Your task to perform on an android device: change timer sound Image 0: 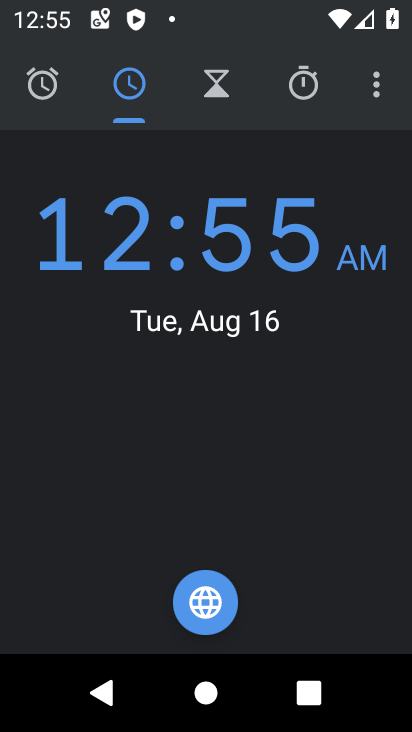
Step 0: press home button
Your task to perform on an android device: change timer sound Image 1: 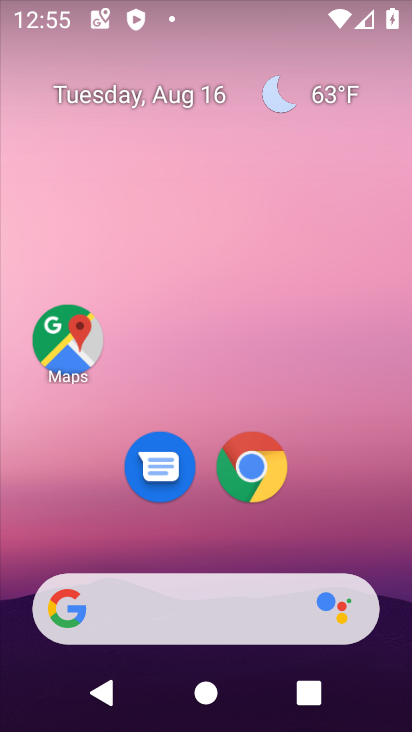
Step 1: drag from (338, 526) to (357, 149)
Your task to perform on an android device: change timer sound Image 2: 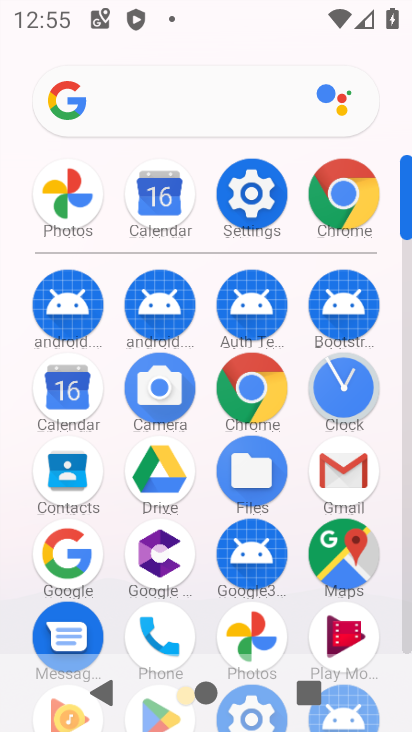
Step 2: click (337, 387)
Your task to perform on an android device: change timer sound Image 3: 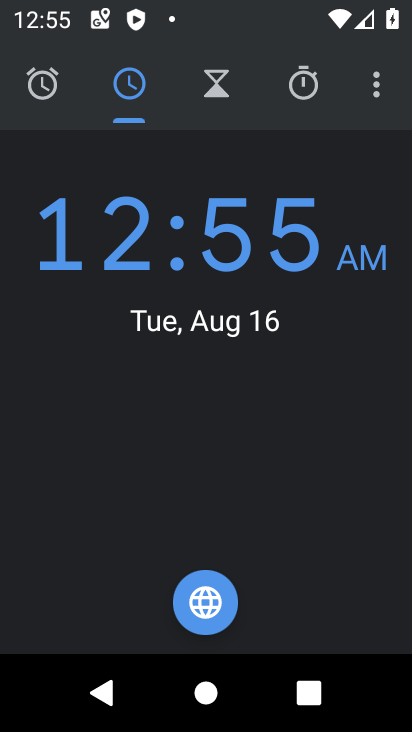
Step 3: click (380, 88)
Your task to perform on an android device: change timer sound Image 4: 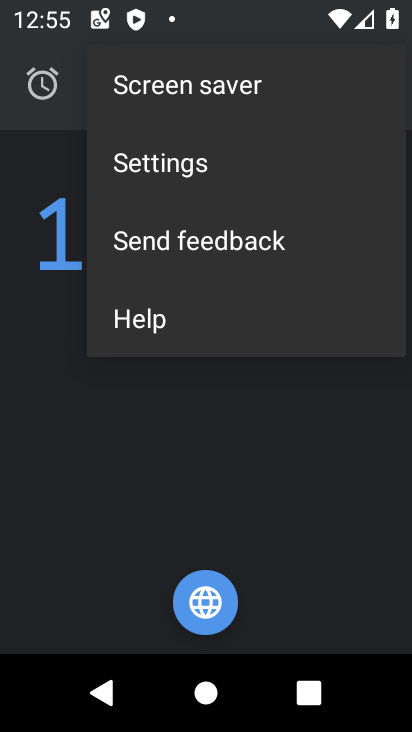
Step 4: click (275, 170)
Your task to perform on an android device: change timer sound Image 5: 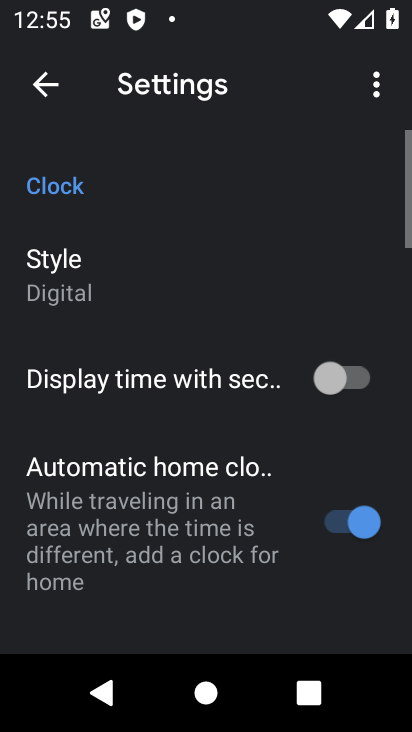
Step 5: drag from (231, 542) to (253, 441)
Your task to perform on an android device: change timer sound Image 6: 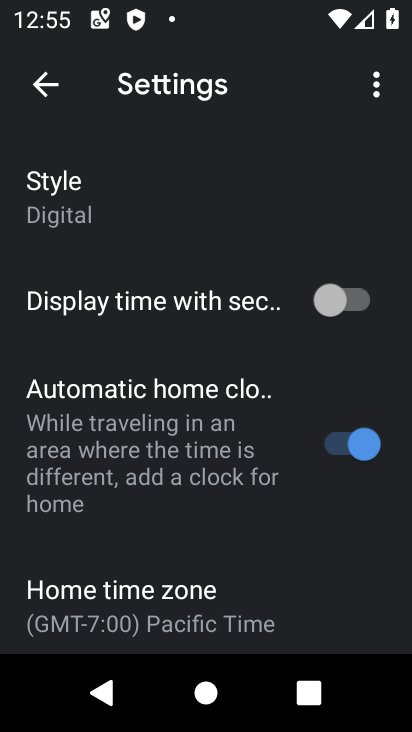
Step 6: drag from (243, 505) to (240, 178)
Your task to perform on an android device: change timer sound Image 7: 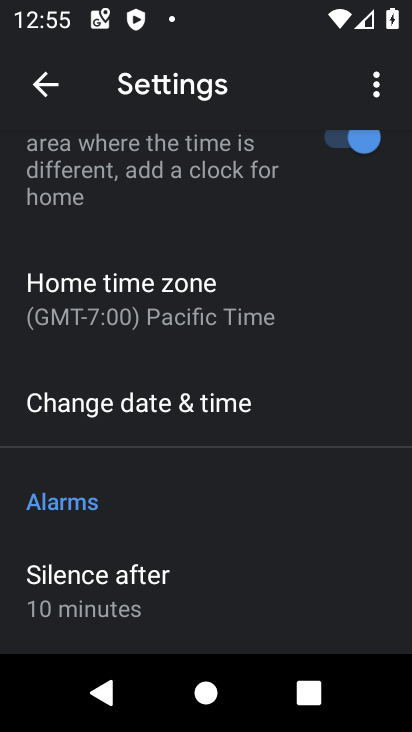
Step 7: drag from (257, 496) to (257, 344)
Your task to perform on an android device: change timer sound Image 8: 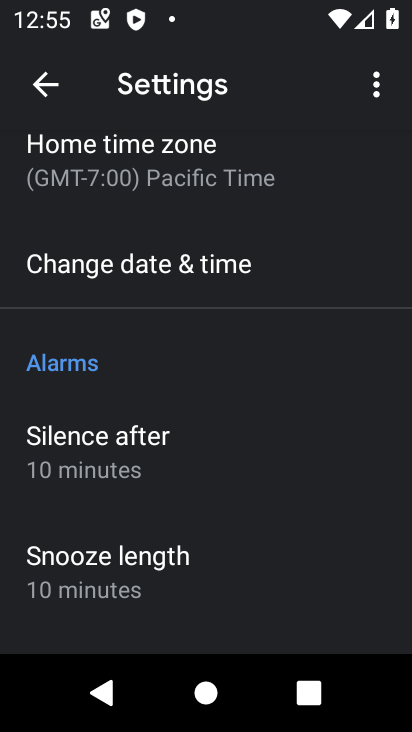
Step 8: drag from (281, 521) to (301, 371)
Your task to perform on an android device: change timer sound Image 9: 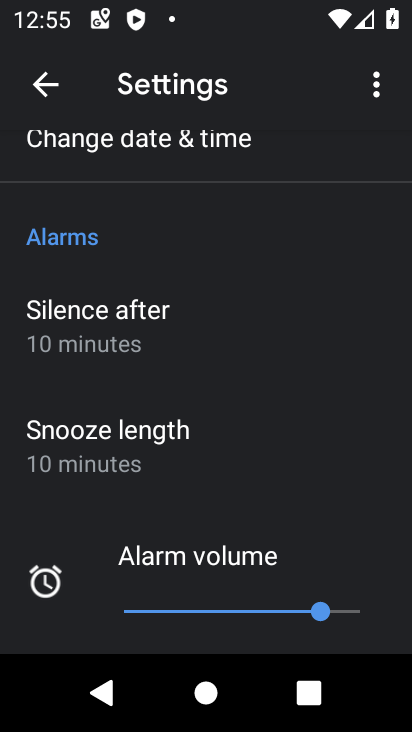
Step 9: drag from (350, 503) to (349, 389)
Your task to perform on an android device: change timer sound Image 10: 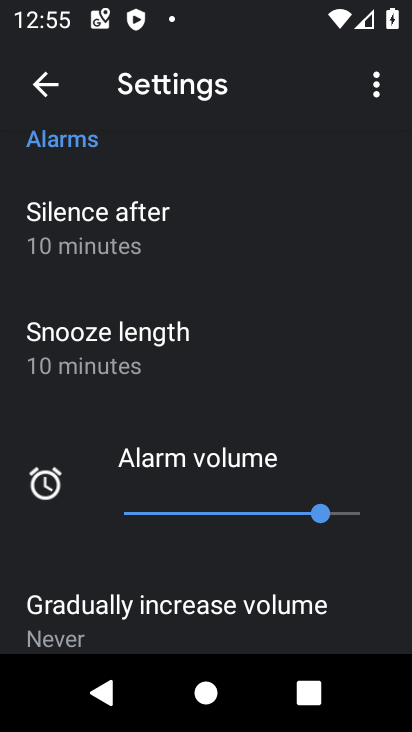
Step 10: drag from (372, 568) to (363, 394)
Your task to perform on an android device: change timer sound Image 11: 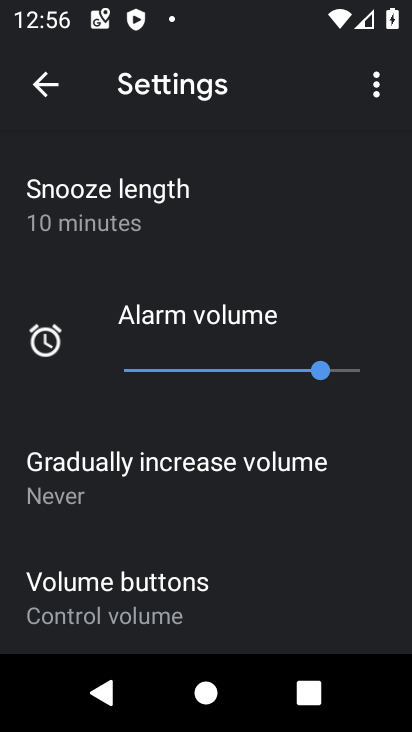
Step 11: drag from (379, 552) to (360, 411)
Your task to perform on an android device: change timer sound Image 12: 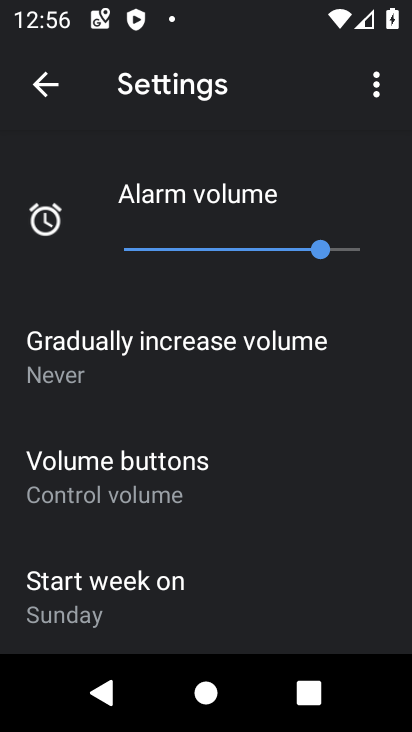
Step 12: drag from (361, 591) to (348, 431)
Your task to perform on an android device: change timer sound Image 13: 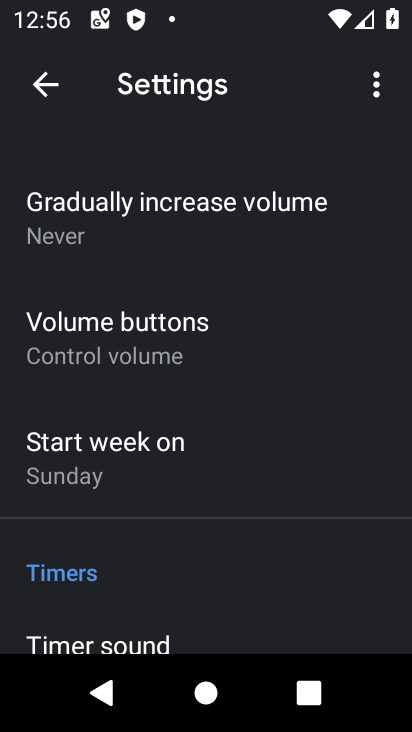
Step 13: drag from (311, 516) to (300, 425)
Your task to perform on an android device: change timer sound Image 14: 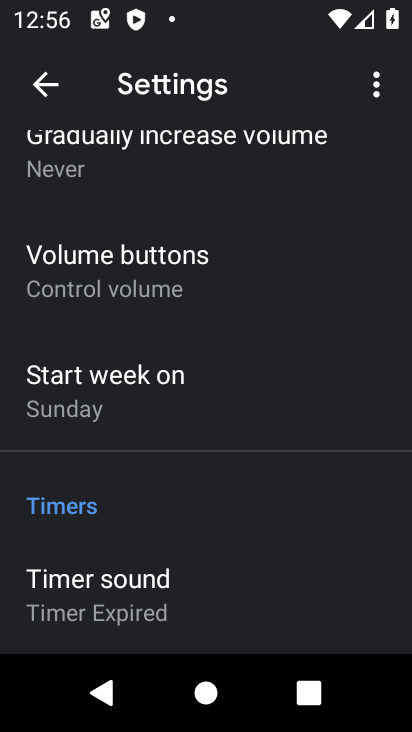
Step 14: drag from (288, 606) to (277, 458)
Your task to perform on an android device: change timer sound Image 15: 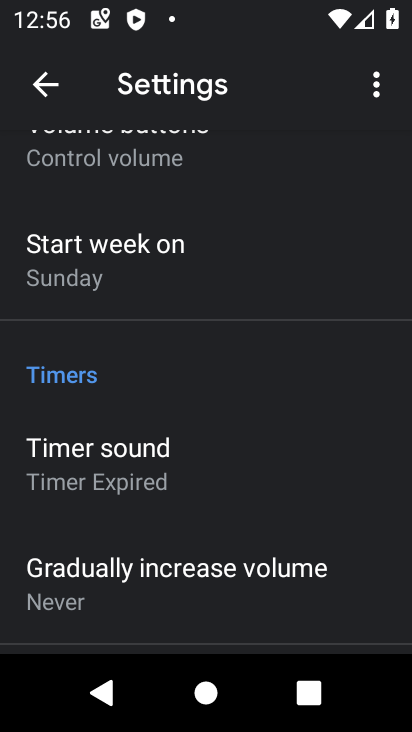
Step 15: click (208, 473)
Your task to perform on an android device: change timer sound Image 16: 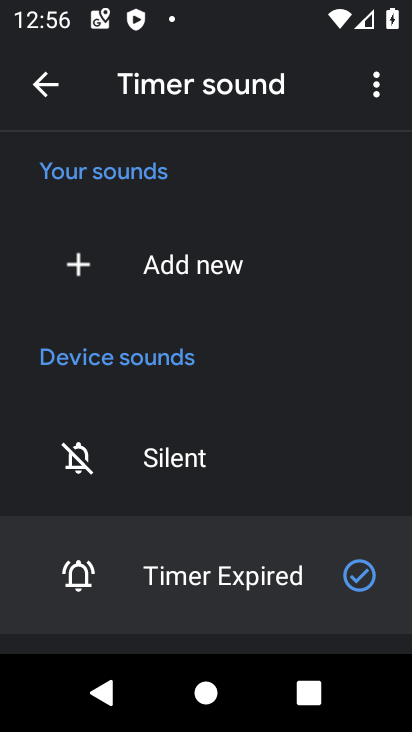
Step 16: click (182, 464)
Your task to perform on an android device: change timer sound Image 17: 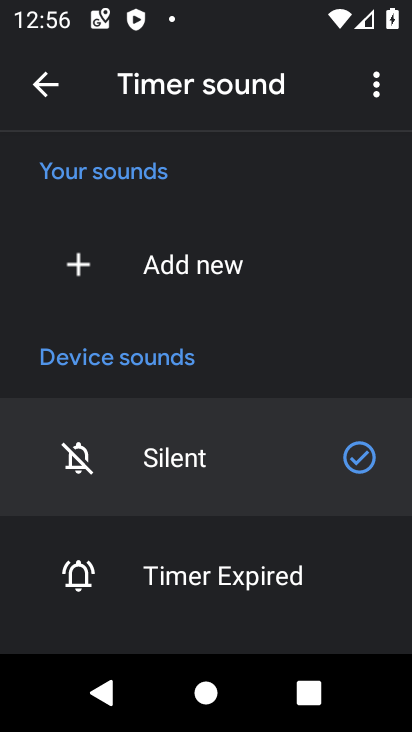
Step 17: task complete